Your task to perform on an android device: turn on the 24-hour format for clock Image 0: 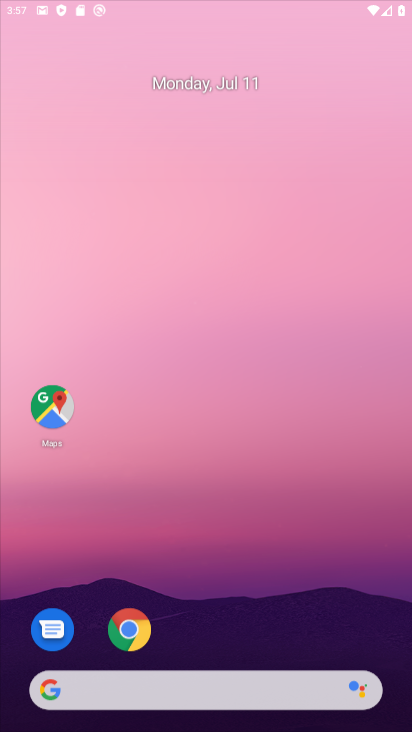
Step 0: press home button
Your task to perform on an android device: turn on the 24-hour format for clock Image 1: 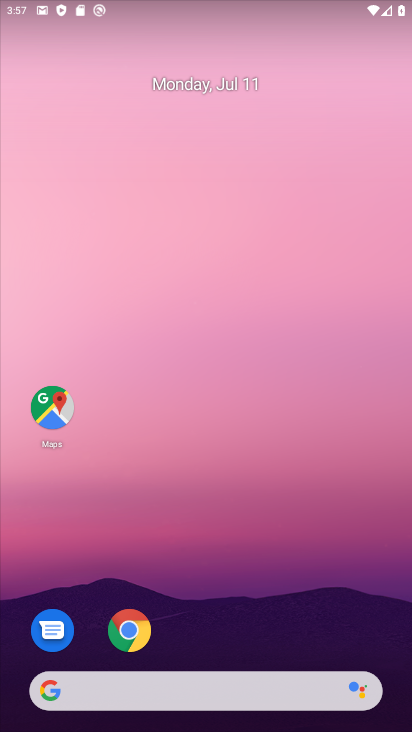
Step 1: drag from (235, 640) to (280, 72)
Your task to perform on an android device: turn on the 24-hour format for clock Image 2: 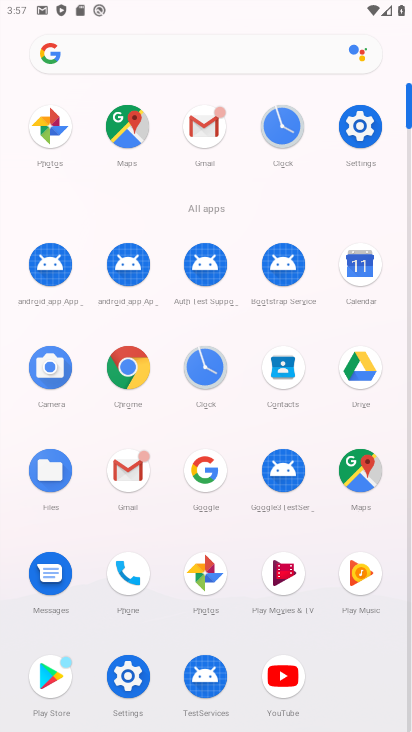
Step 2: click (281, 123)
Your task to perform on an android device: turn on the 24-hour format for clock Image 3: 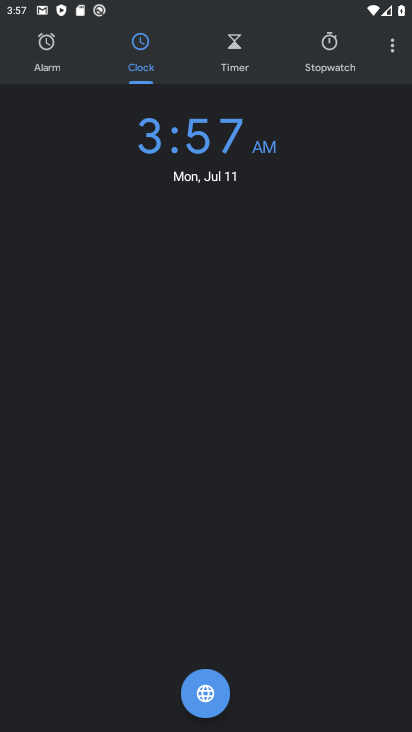
Step 3: click (394, 49)
Your task to perform on an android device: turn on the 24-hour format for clock Image 4: 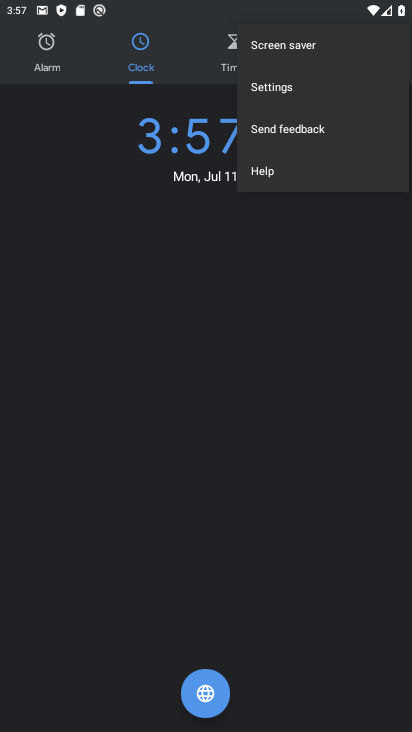
Step 4: click (292, 90)
Your task to perform on an android device: turn on the 24-hour format for clock Image 5: 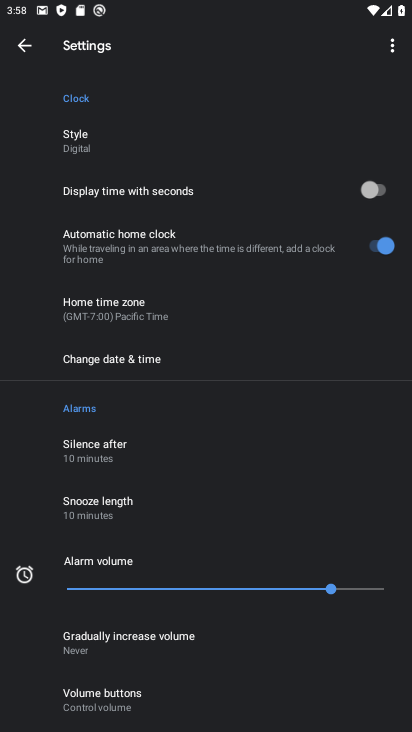
Step 5: click (175, 363)
Your task to perform on an android device: turn on the 24-hour format for clock Image 6: 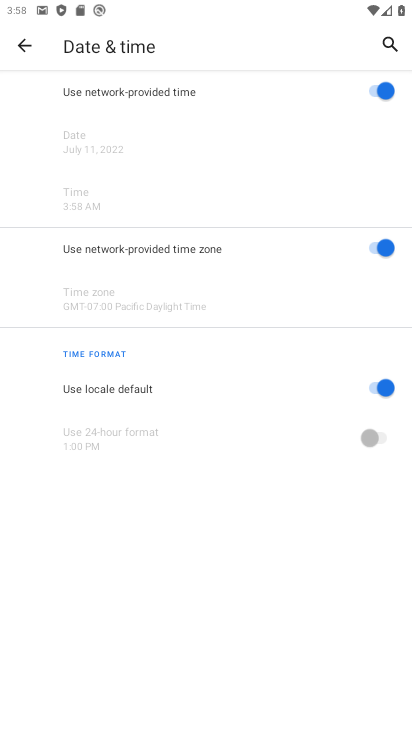
Step 6: click (376, 386)
Your task to perform on an android device: turn on the 24-hour format for clock Image 7: 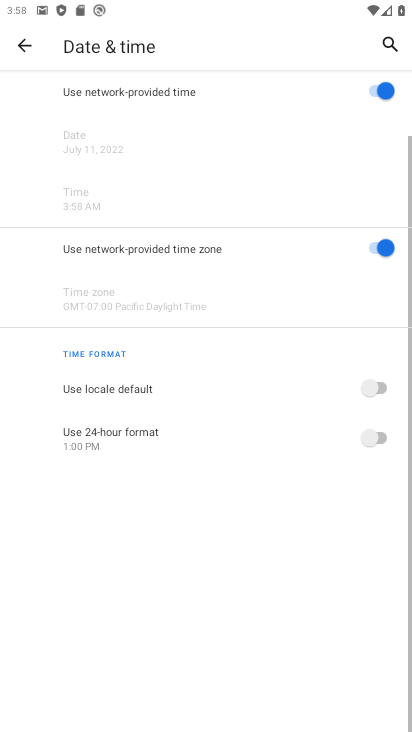
Step 7: click (382, 426)
Your task to perform on an android device: turn on the 24-hour format for clock Image 8: 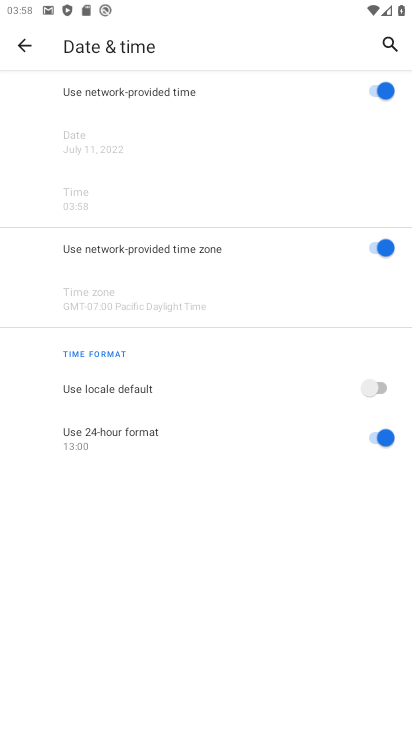
Step 8: task complete